Your task to perform on an android device: add a contact in the contacts app Image 0: 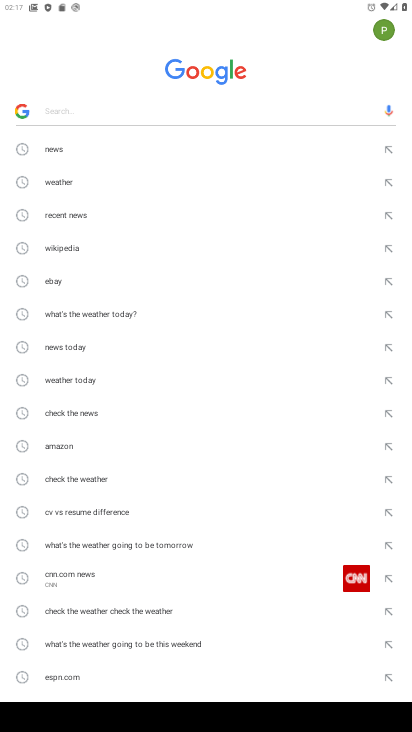
Step 0: press home button
Your task to perform on an android device: add a contact in the contacts app Image 1: 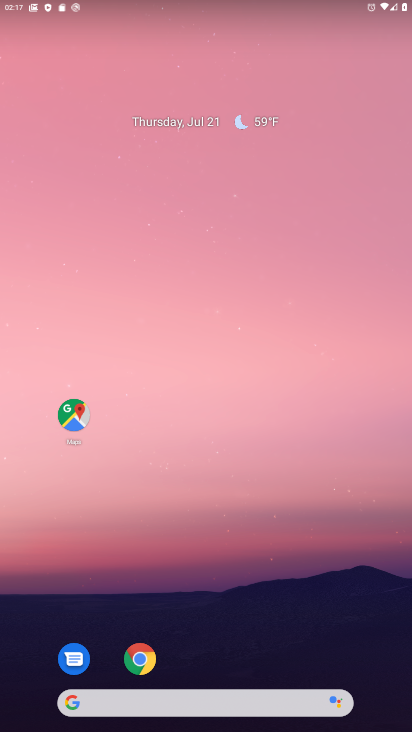
Step 1: drag from (232, 568) to (147, 0)
Your task to perform on an android device: add a contact in the contacts app Image 2: 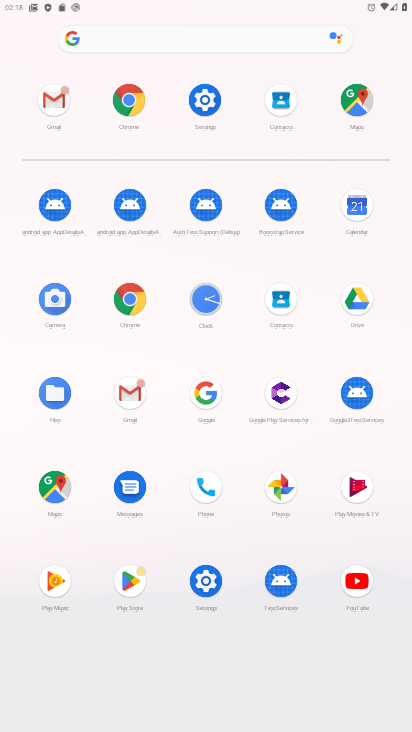
Step 2: click (281, 287)
Your task to perform on an android device: add a contact in the contacts app Image 3: 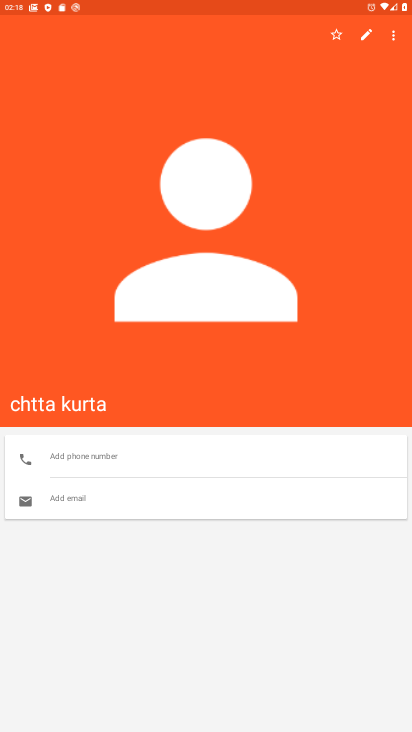
Step 3: task complete